Your task to perform on an android device: clear history in the chrome app Image 0: 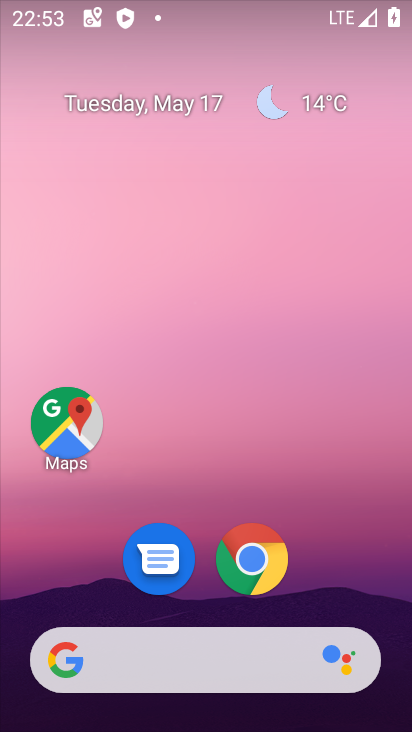
Step 0: click (253, 564)
Your task to perform on an android device: clear history in the chrome app Image 1: 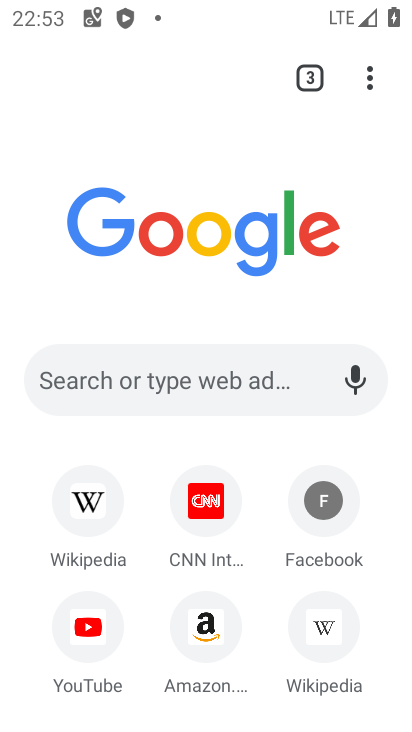
Step 1: drag from (371, 75) to (147, 398)
Your task to perform on an android device: clear history in the chrome app Image 2: 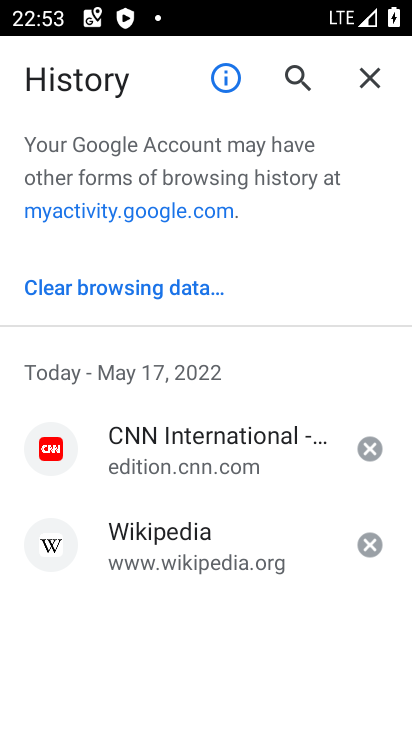
Step 2: click (155, 293)
Your task to perform on an android device: clear history in the chrome app Image 3: 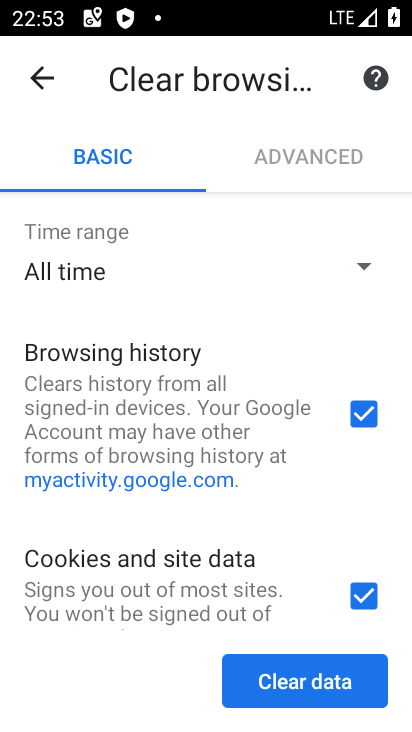
Step 3: click (326, 675)
Your task to perform on an android device: clear history in the chrome app Image 4: 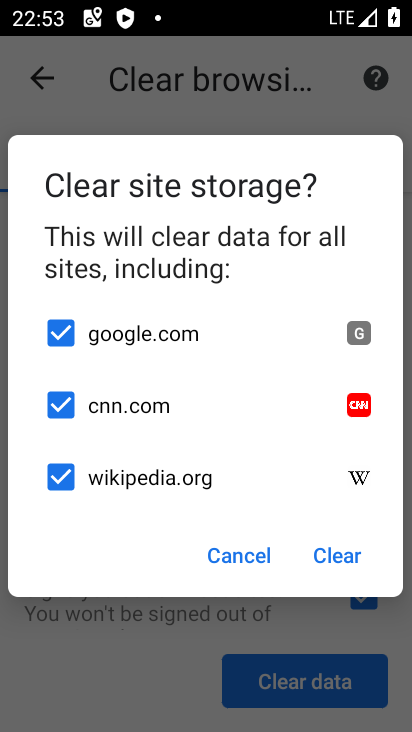
Step 4: click (338, 549)
Your task to perform on an android device: clear history in the chrome app Image 5: 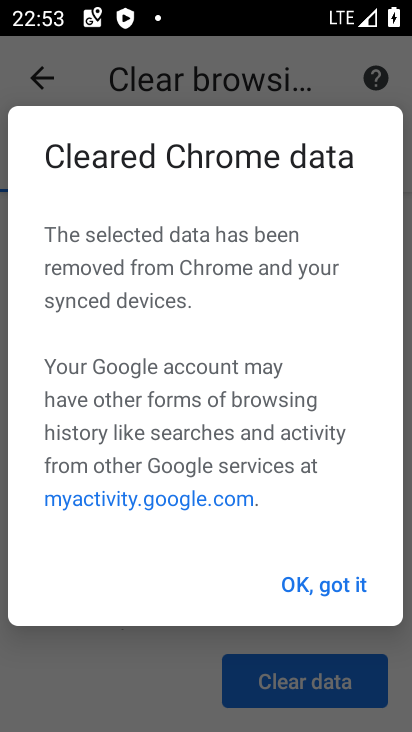
Step 5: task complete